Your task to perform on an android device: Open Maps and search for coffee Image 0: 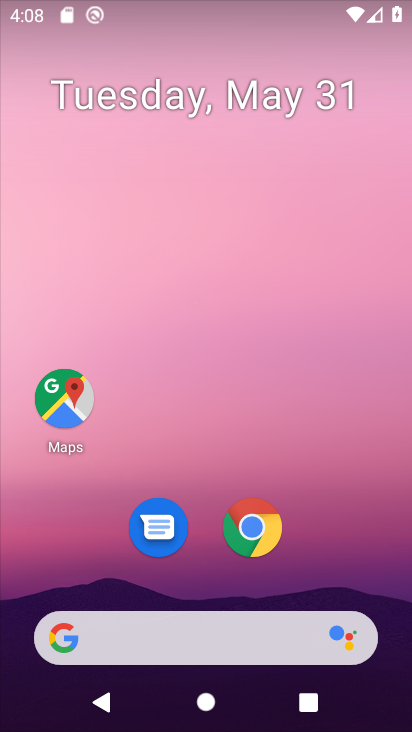
Step 0: drag from (330, 528) to (186, 25)
Your task to perform on an android device: Open Maps and search for coffee Image 1: 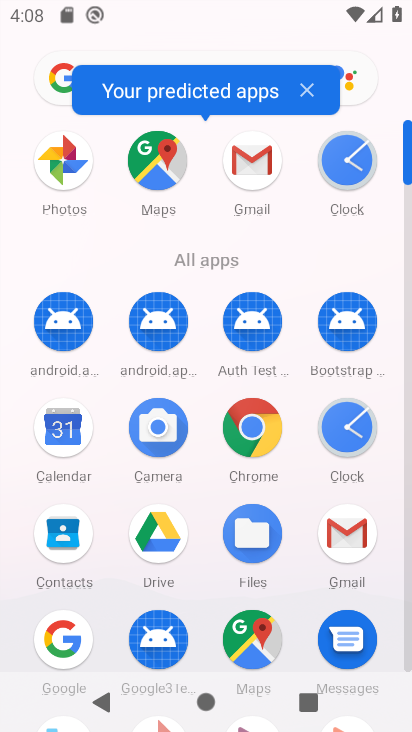
Step 1: drag from (14, 551) to (12, 201)
Your task to perform on an android device: Open Maps and search for coffee Image 2: 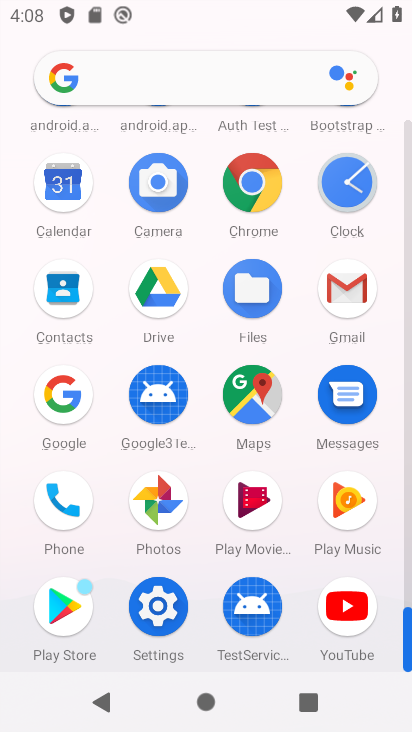
Step 2: click (249, 394)
Your task to perform on an android device: Open Maps and search for coffee Image 3: 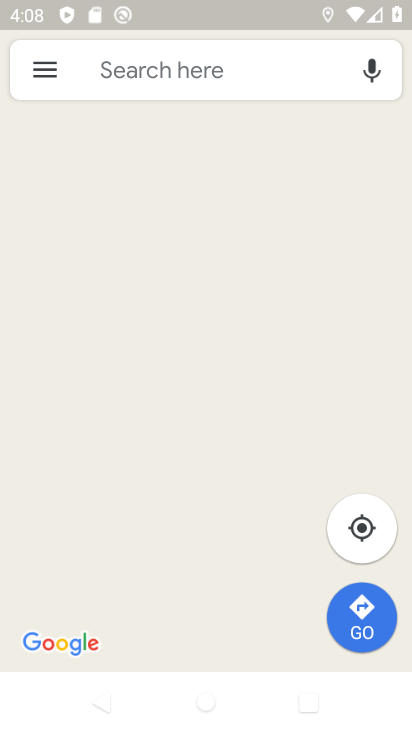
Step 3: click (239, 59)
Your task to perform on an android device: Open Maps and search for coffee Image 4: 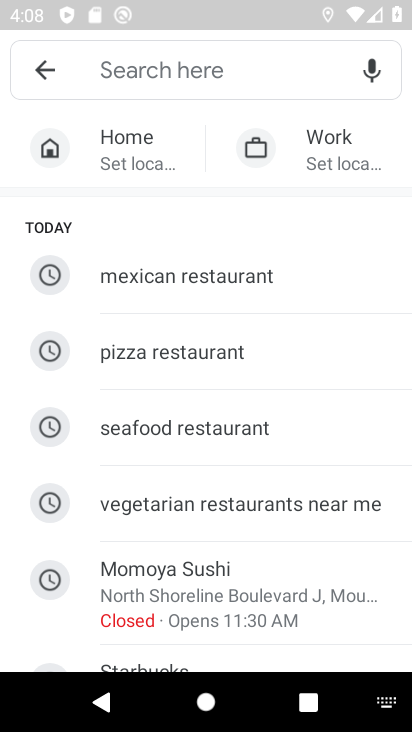
Step 4: type "coffee"
Your task to perform on an android device: Open Maps and search for coffee Image 5: 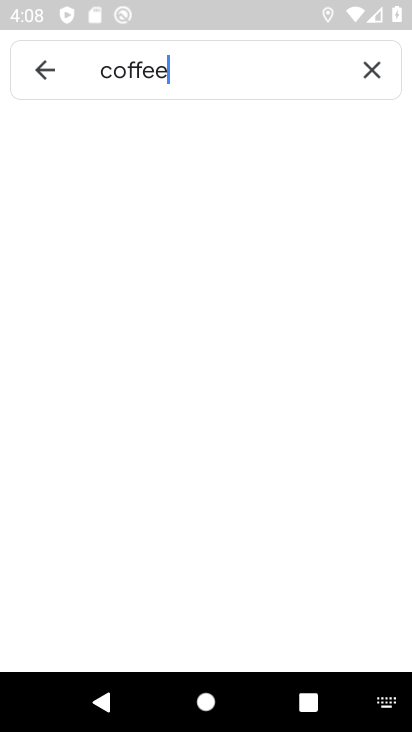
Step 5: type ""
Your task to perform on an android device: Open Maps and search for coffee Image 6: 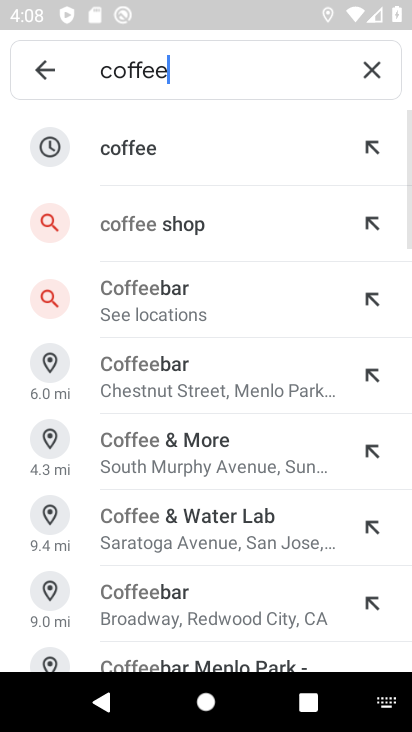
Step 6: click (166, 220)
Your task to perform on an android device: Open Maps and search for coffee Image 7: 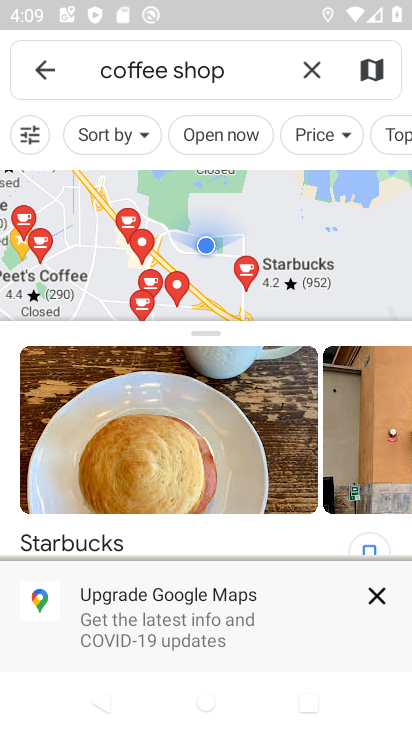
Step 7: task complete